Your task to perform on an android device: turn on data saver in the chrome app Image 0: 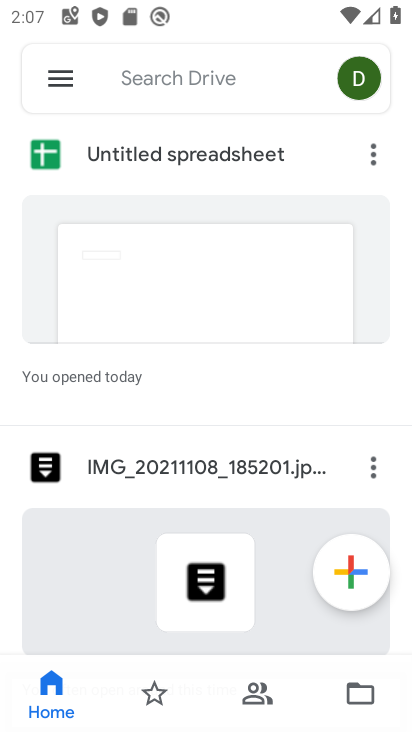
Step 0: press home button
Your task to perform on an android device: turn on data saver in the chrome app Image 1: 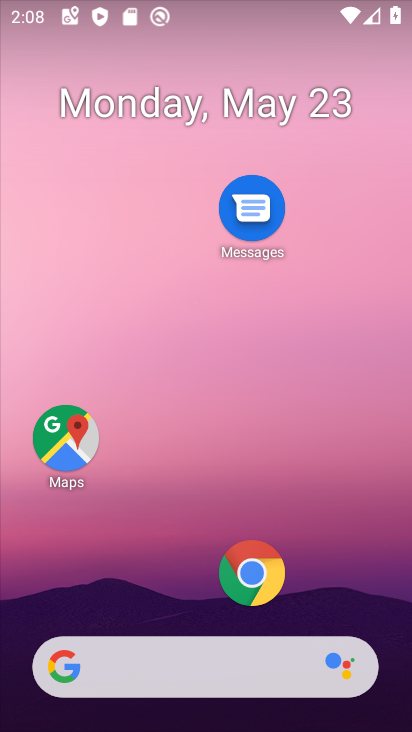
Step 1: drag from (300, 118) to (284, 1)
Your task to perform on an android device: turn on data saver in the chrome app Image 2: 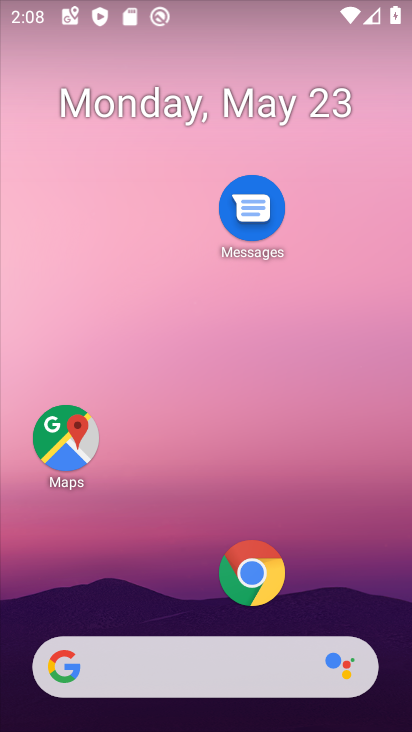
Step 2: drag from (210, 644) to (202, 21)
Your task to perform on an android device: turn on data saver in the chrome app Image 3: 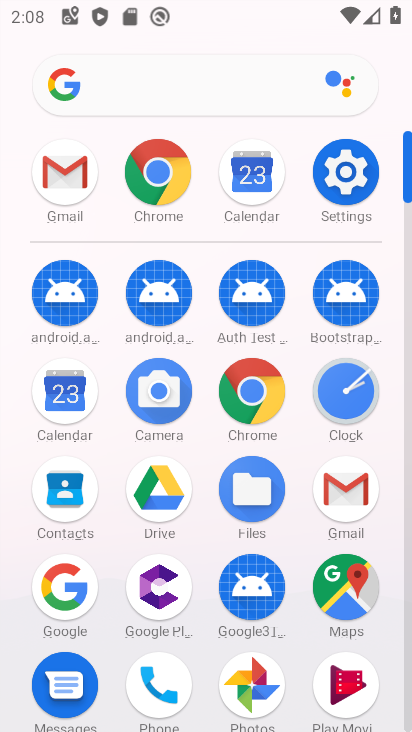
Step 3: click (265, 417)
Your task to perform on an android device: turn on data saver in the chrome app Image 4: 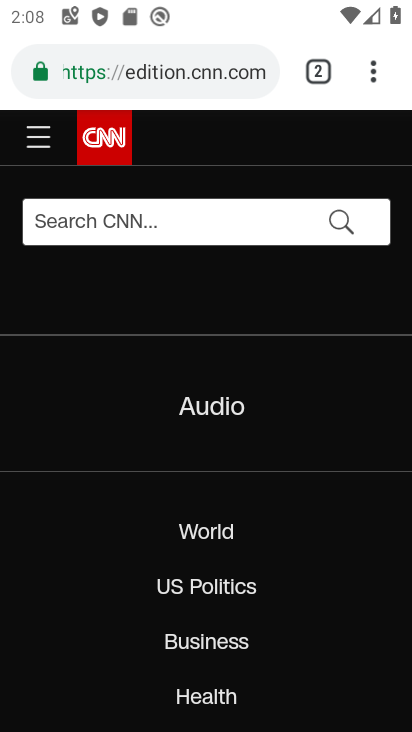
Step 4: drag from (380, 71) to (123, 582)
Your task to perform on an android device: turn on data saver in the chrome app Image 5: 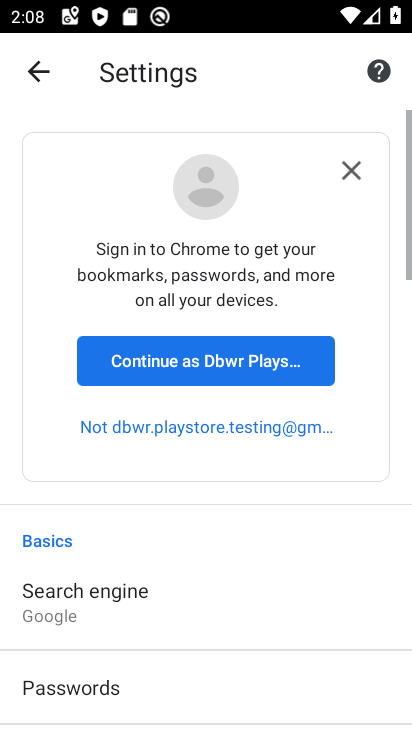
Step 5: drag from (207, 667) to (242, 98)
Your task to perform on an android device: turn on data saver in the chrome app Image 6: 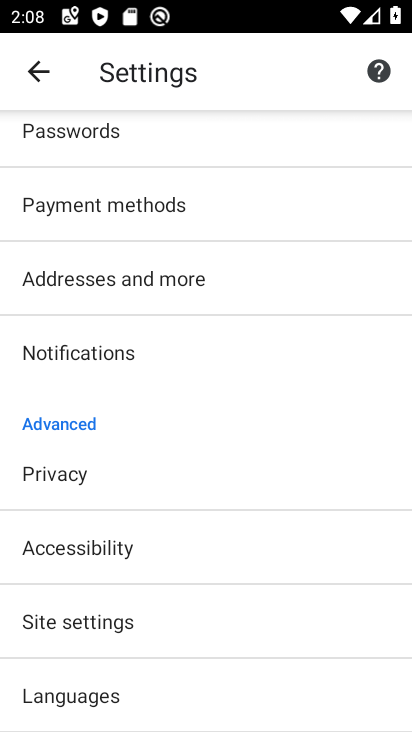
Step 6: drag from (192, 667) to (220, 207)
Your task to perform on an android device: turn on data saver in the chrome app Image 7: 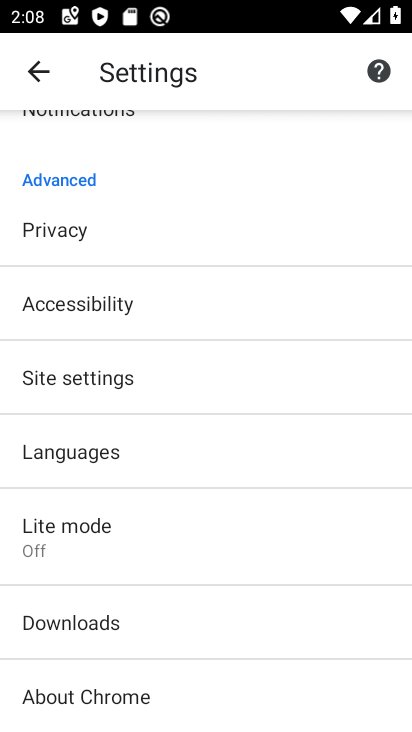
Step 7: click (90, 531)
Your task to perform on an android device: turn on data saver in the chrome app Image 8: 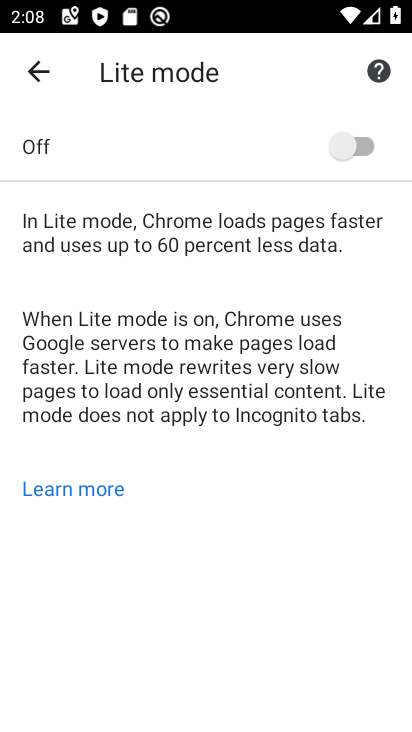
Step 8: click (362, 146)
Your task to perform on an android device: turn on data saver in the chrome app Image 9: 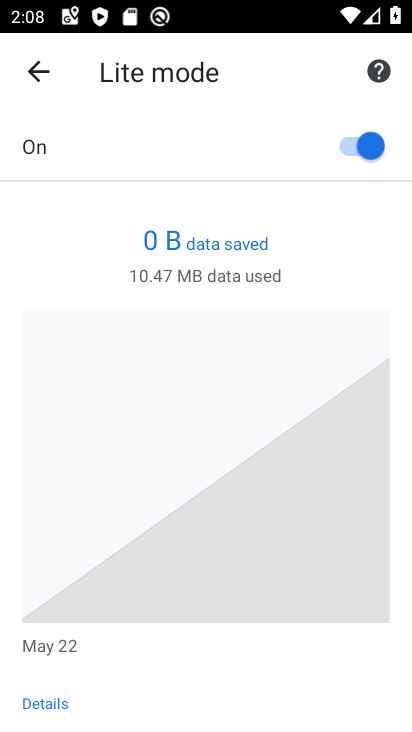
Step 9: task complete